Your task to perform on an android device: turn off notifications in google photos Image 0: 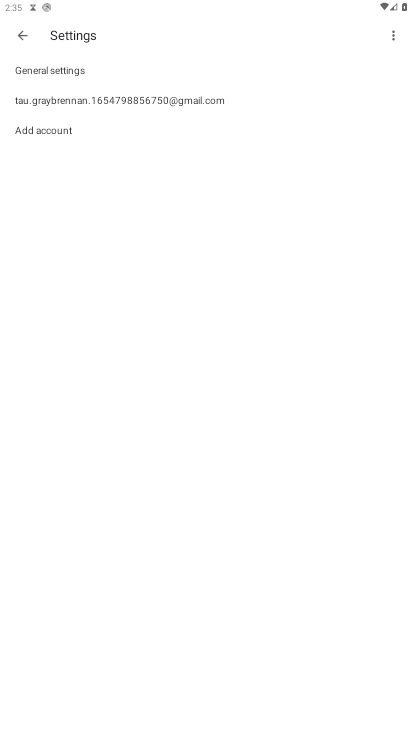
Step 0: press home button
Your task to perform on an android device: turn off notifications in google photos Image 1: 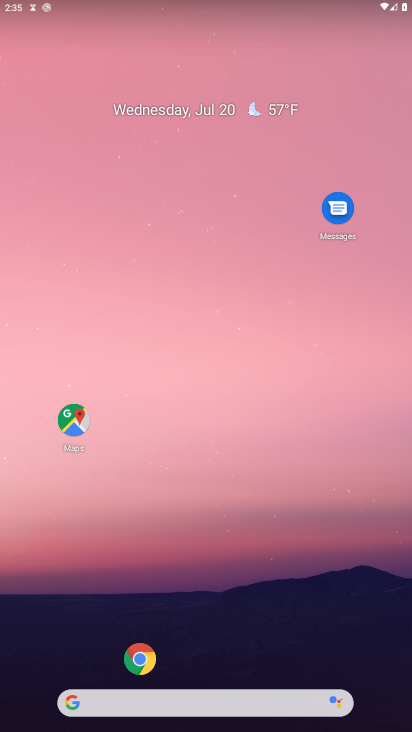
Step 1: drag from (87, 498) to (167, 228)
Your task to perform on an android device: turn off notifications in google photos Image 2: 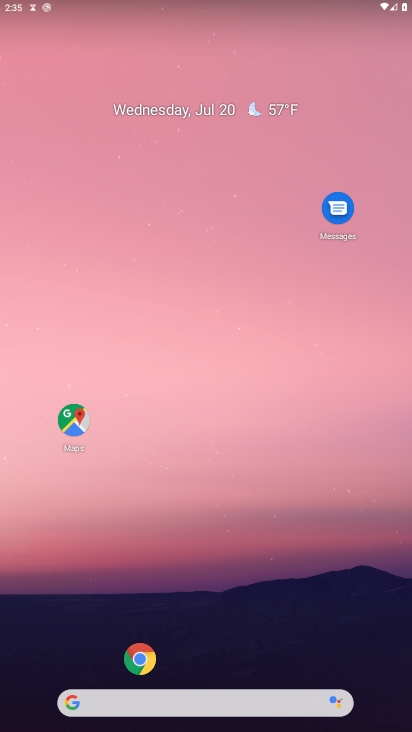
Step 2: click (254, 48)
Your task to perform on an android device: turn off notifications in google photos Image 3: 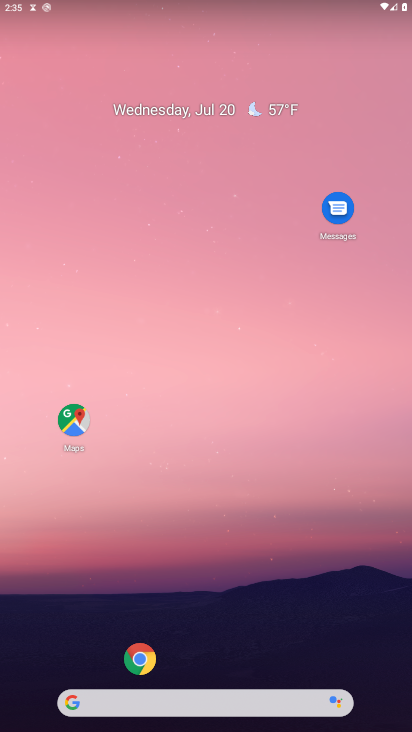
Step 3: drag from (17, 690) to (297, 2)
Your task to perform on an android device: turn off notifications in google photos Image 4: 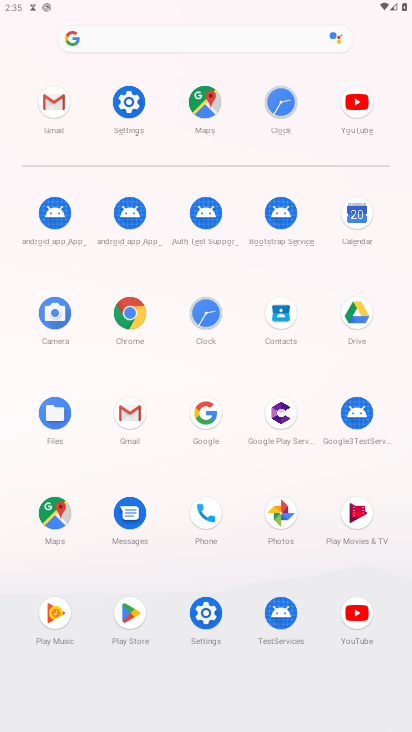
Step 4: click (292, 514)
Your task to perform on an android device: turn off notifications in google photos Image 5: 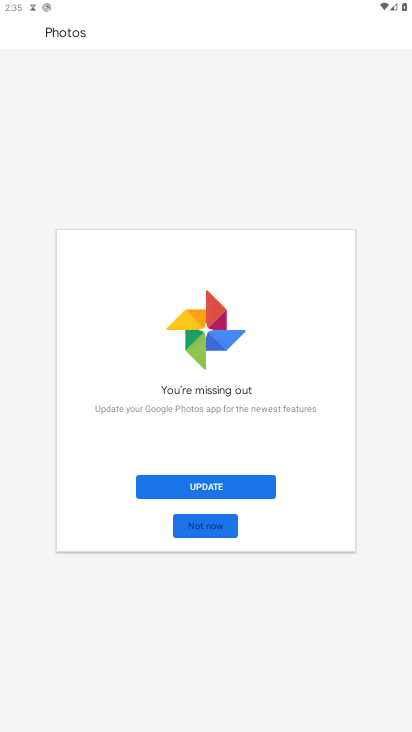
Step 5: click (207, 528)
Your task to perform on an android device: turn off notifications in google photos Image 6: 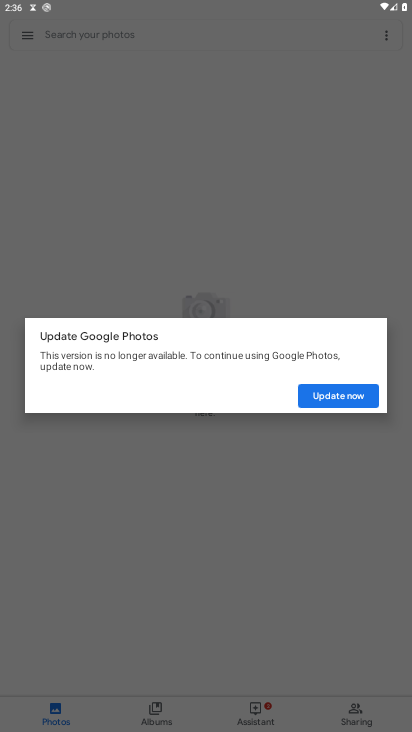
Step 6: click (333, 393)
Your task to perform on an android device: turn off notifications in google photos Image 7: 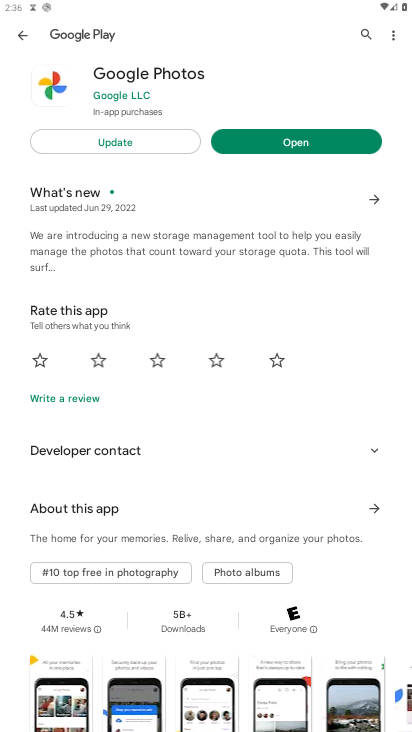
Step 7: click (330, 139)
Your task to perform on an android device: turn off notifications in google photos Image 8: 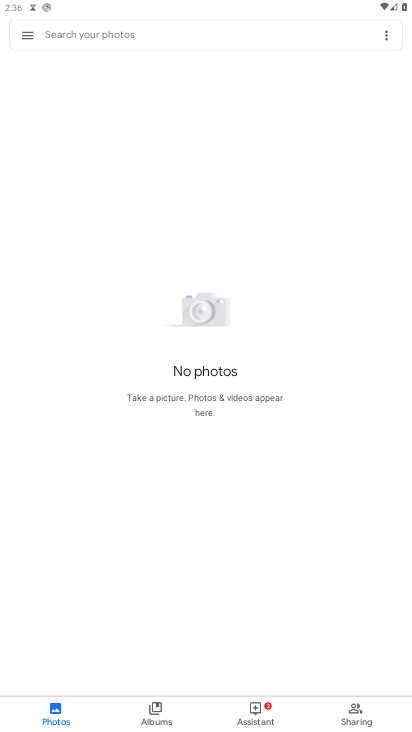
Step 8: click (23, 26)
Your task to perform on an android device: turn off notifications in google photos Image 9: 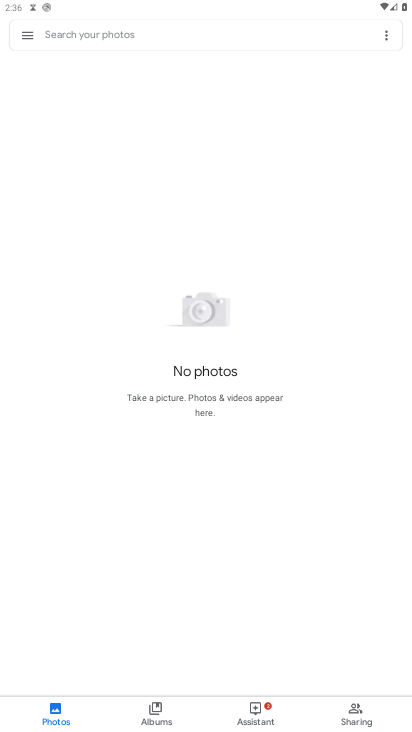
Step 9: click (22, 39)
Your task to perform on an android device: turn off notifications in google photos Image 10: 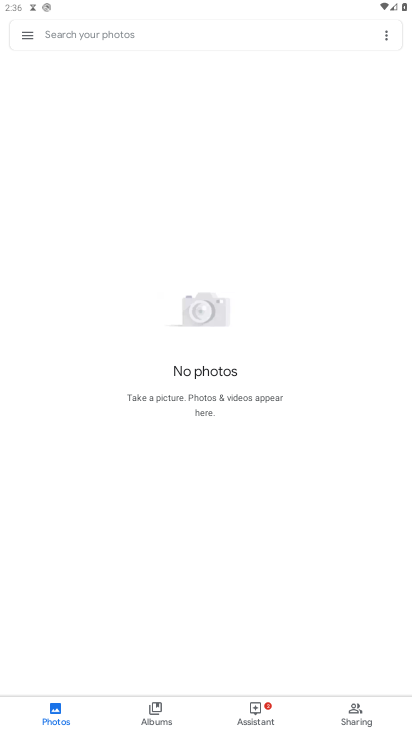
Step 10: click (38, 32)
Your task to perform on an android device: turn off notifications in google photos Image 11: 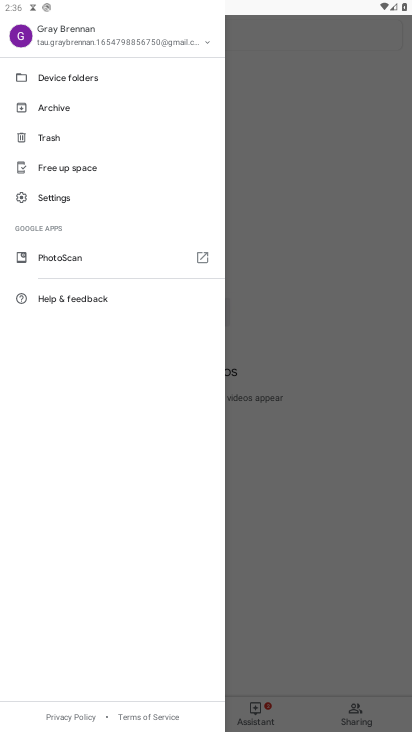
Step 11: click (89, 193)
Your task to perform on an android device: turn off notifications in google photos Image 12: 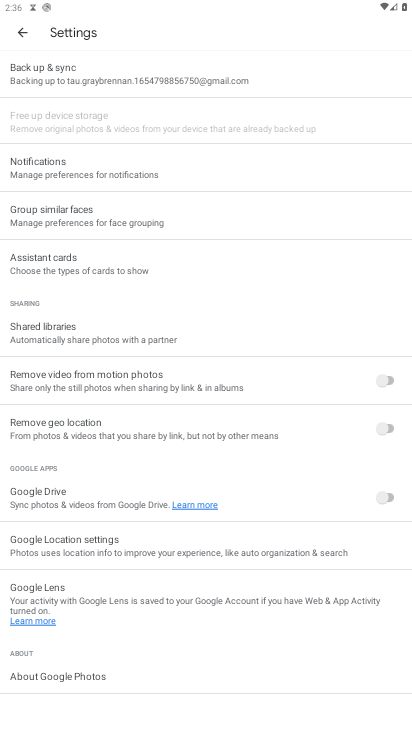
Step 12: click (55, 165)
Your task to perform on an android device: turn off notifications in google photos Image 13: 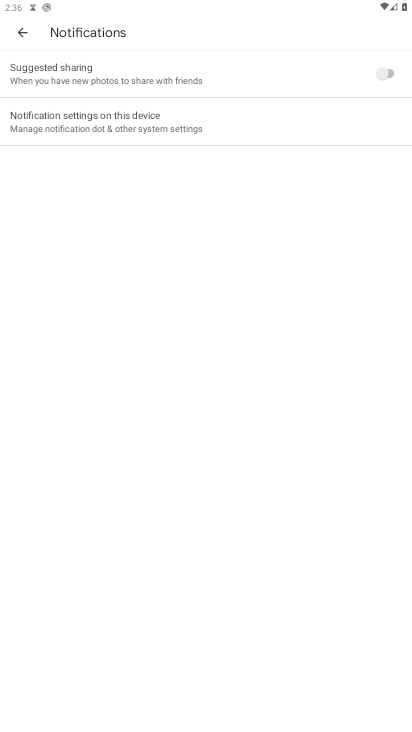
Step 13: click (65, 126)
Your task to perform on an android device: turn off notifications in google photos Image 14: 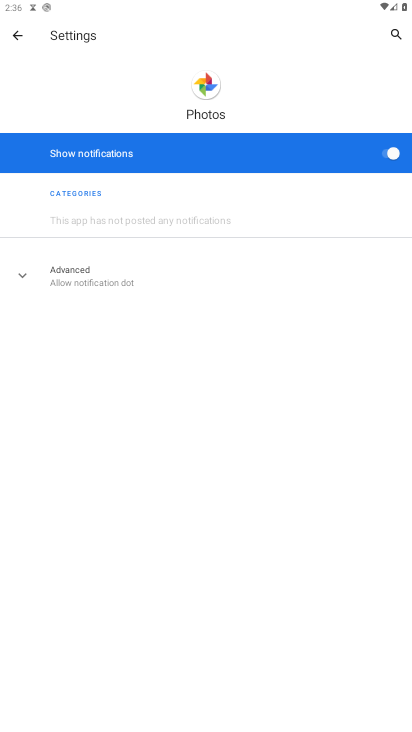
Step 14: click (387, 157)
Your task to perform on an android device: turn off notifications in google photos Image 15: 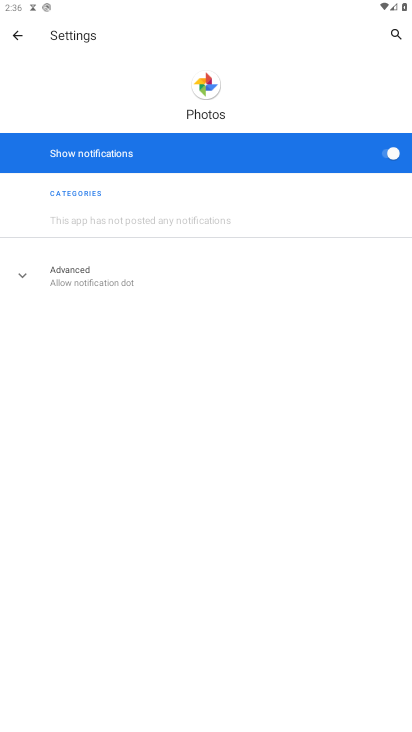
Step 15: click (398, 156)
Your task to perform on an android device: turn off notifications in google photos Image 16: 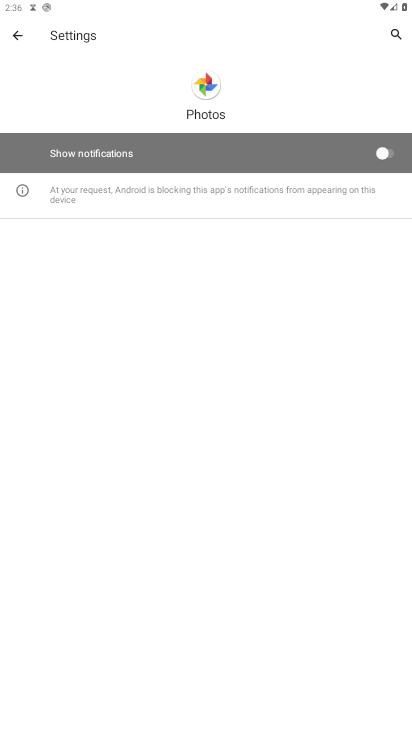
Step 16: task complete